Your task to perform on an android device: turn off wifi Image 0: 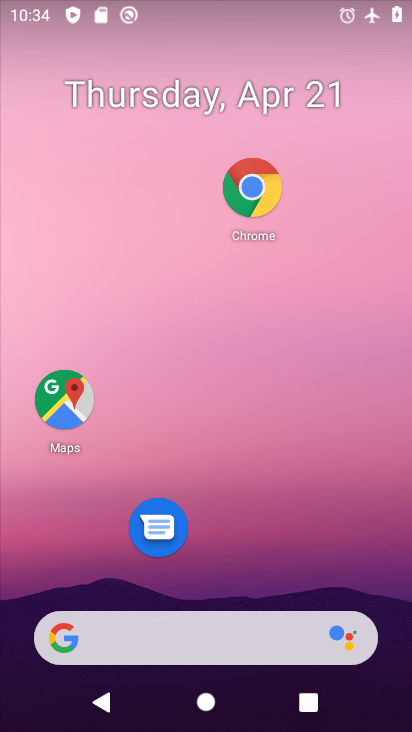
Step 0: drag from (317, 510) to (329, 220)
Your task to perform on an android device: turn off wifi Image 1: 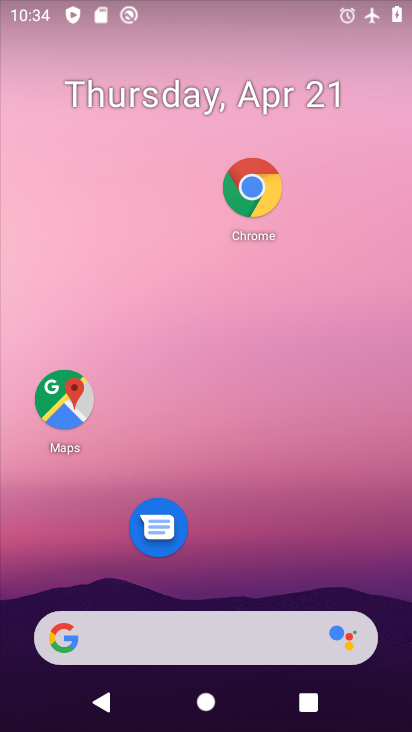
Step 1: drag from (267, 503) to (264, 127)
Your task to perform on an android device: turn off wifi Image 2: 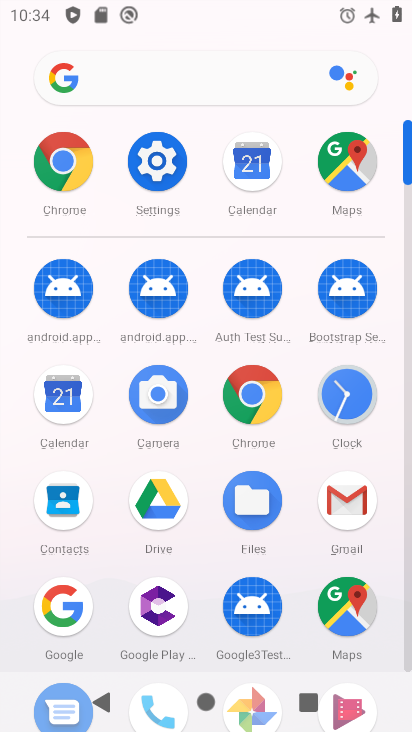
Step 2: click (168, 184)
Your task to perform on an android device: turn off wifi Image 3: 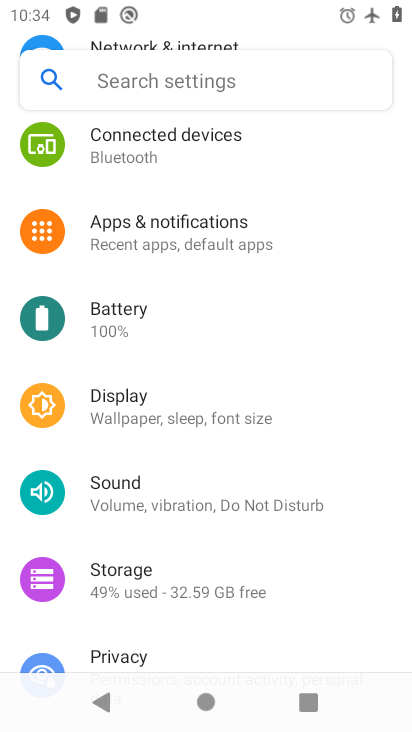
Step 3: drag from (181, 327) to (193, 580)
Your task to perform on an android device: turn off wifi Image 4: 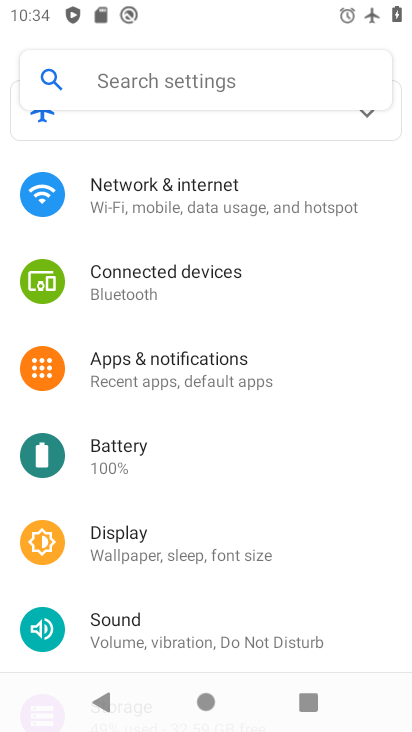
Step 4: drag from (277, 310) to (240, 707)
Your task to perform on an android device: turn off wifi Image 5: 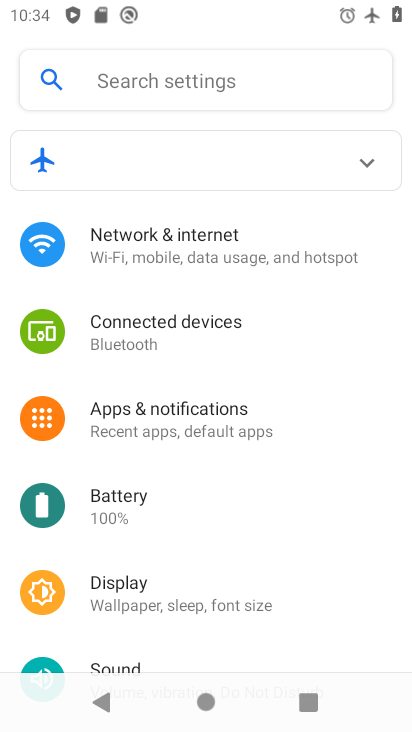
Step 5: click (314, 256)
Your task to perform on an android device: turn off wifi Image 6: 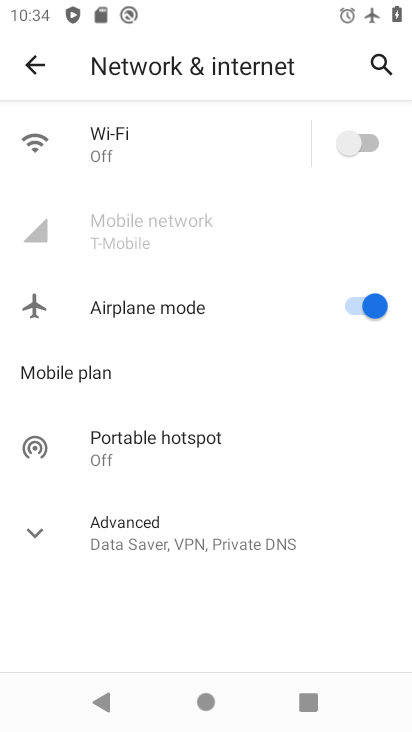
Step 6: click (197, 153)
Your task to perform on an android device: turn off wifi Image 7: 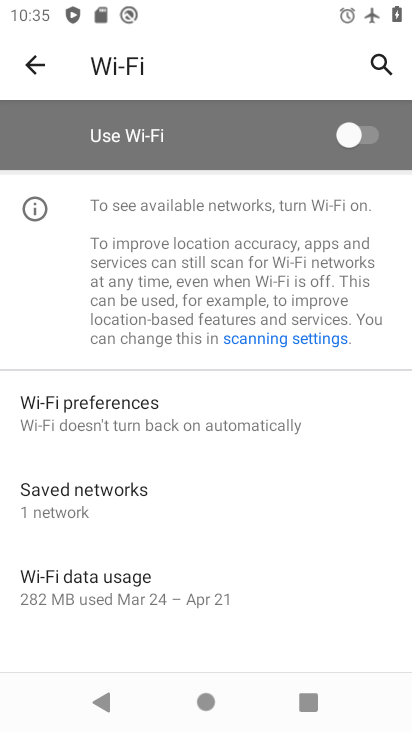
Step 7: task complete